Your task to perform on an android device: What's the weather going to be tomorrow? Image 0: 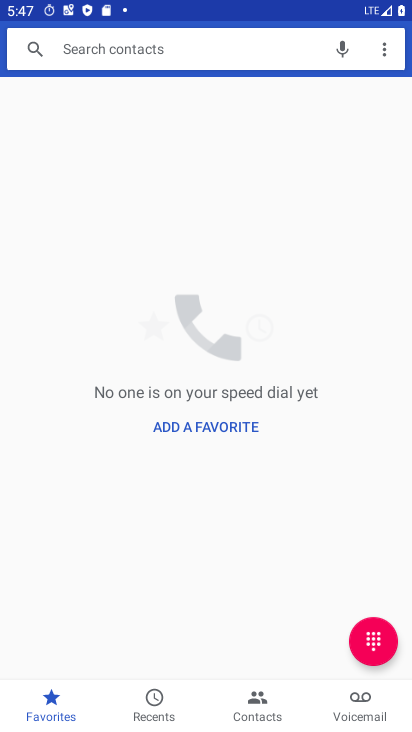
Step 0: press home button
Your task to perform on an android device: What's the weather going to be tomorrow? Image 1: 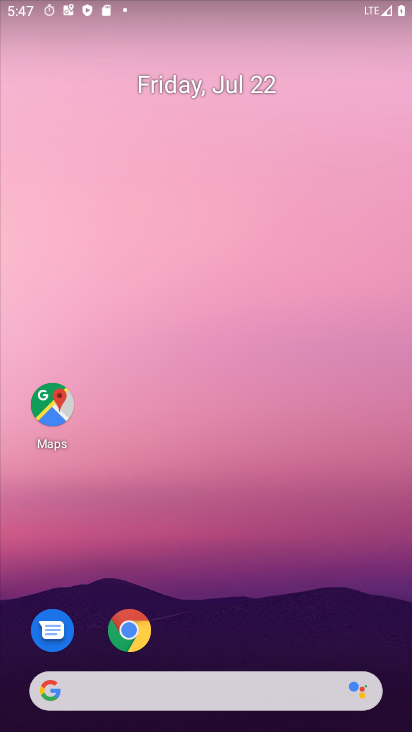
Step 1: drag from (171, 632) to (196, 25)
Your task to perform on an android device: What's the weather going to be tomorrow? Image 2: 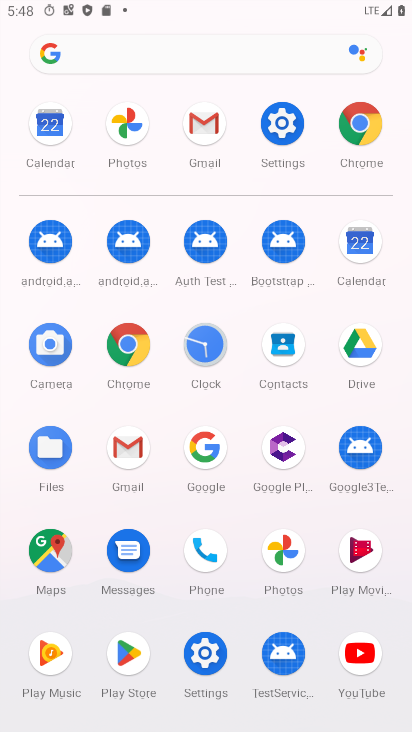
Step 2: click (139, 351)
Your task to perform on an android device: What's the weather going to be tomorrow? Image 3: 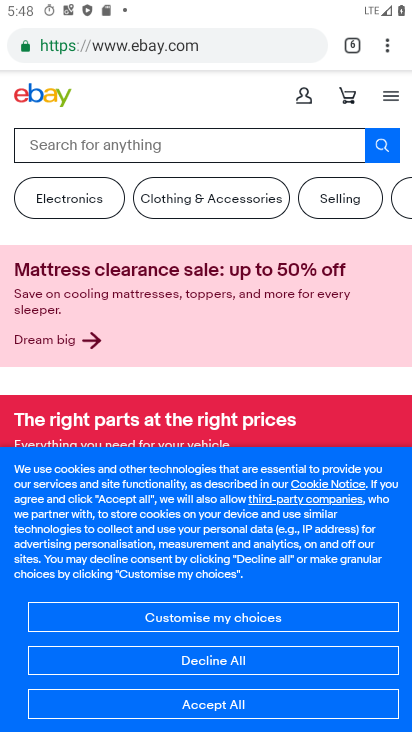
Step 3: click (157, 40)
Your task to perform on an android device: What's the weather going to be tomorrow? Image 4: 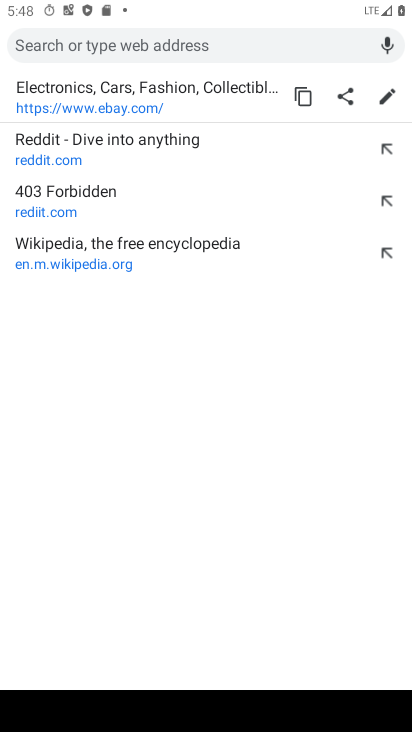
Step 4: type "weather going to be tomorrow"
Your task to perform on an android device: What's the weather going to be tomorrow? Image 5: 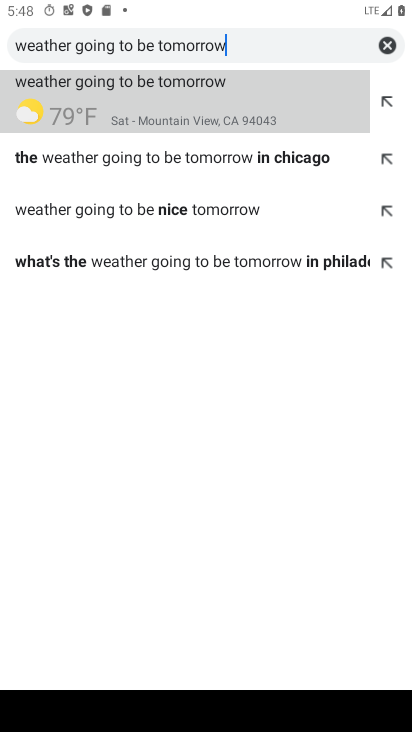
Step 5: click (279, 100)
Your task to perform on an android device: What's the weather going to be tomorrow? Image 6: 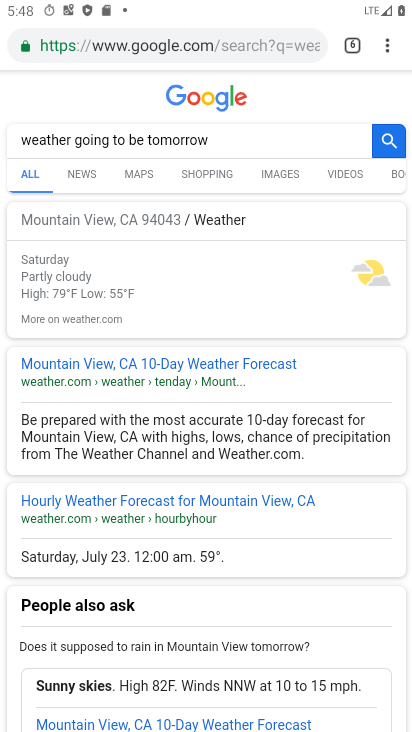
Step 6: task complete